Your task to perform on an android device: turn off location Image 0: 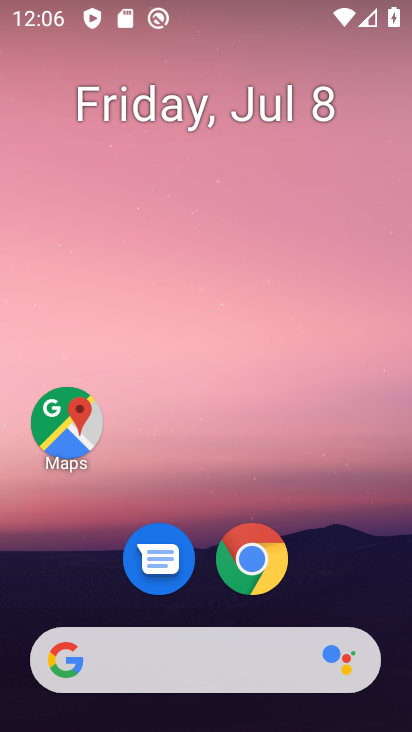
Step 0: drag from (240, 620) to (224, 102)
Your task to perform on an android device: turn off location Image 1: 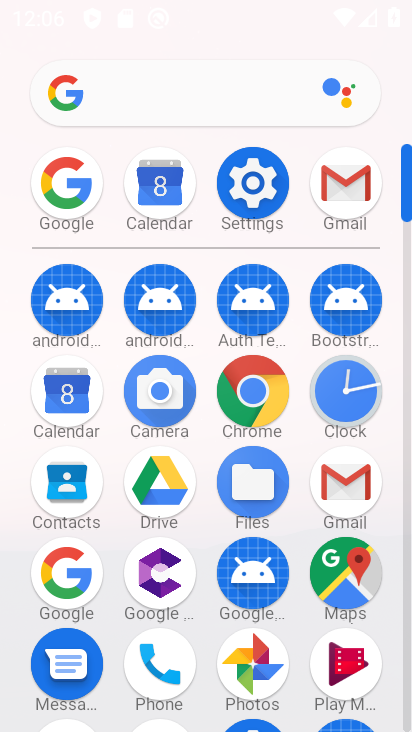
Step 1: click (251, 153)
Your task to perform on an android device: turn off location Image 2: 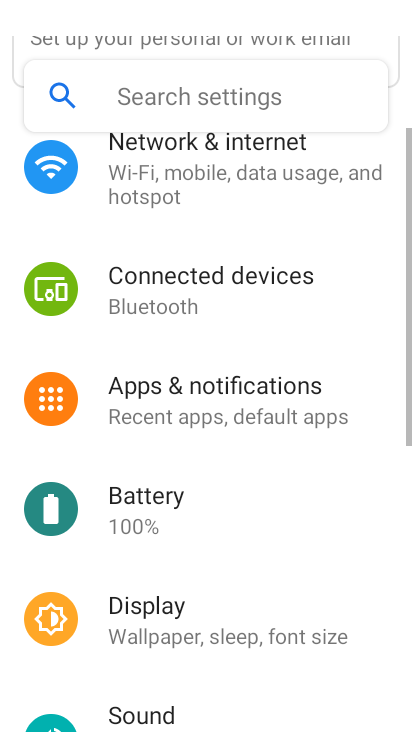
Step 2: drag from (242, 459) to (215, 138)
Your task to perform on an android device: turn off location Image 3: 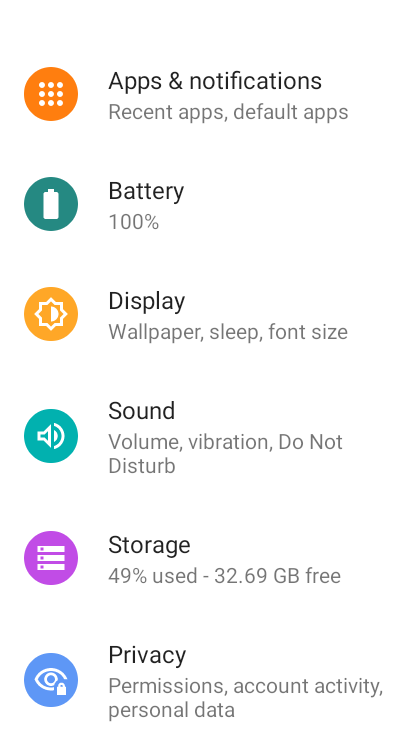
Step 3: drag from (259, 507) to (238, 171)
Your task to perform on an android device: turn off location Image 4: 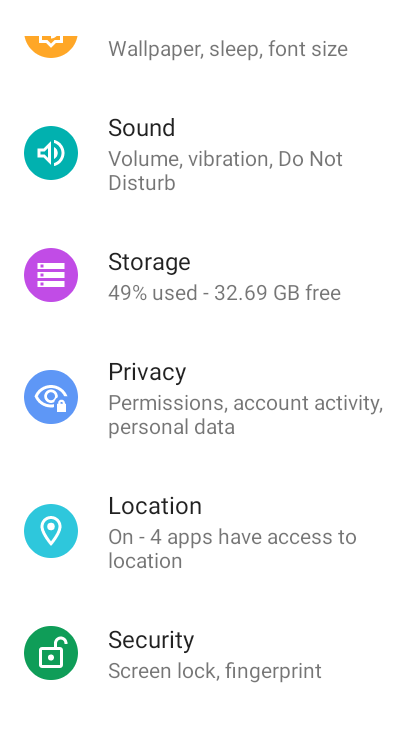
Step 4: click (200, 502)
Your task to perform on an android device: turn off location Image 5: 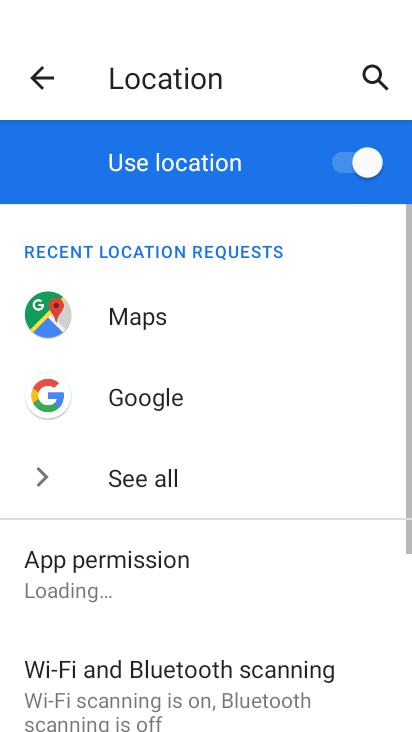
Step 5: click (345, 174)
Your task to perform on an android device: turn off location Image 6: 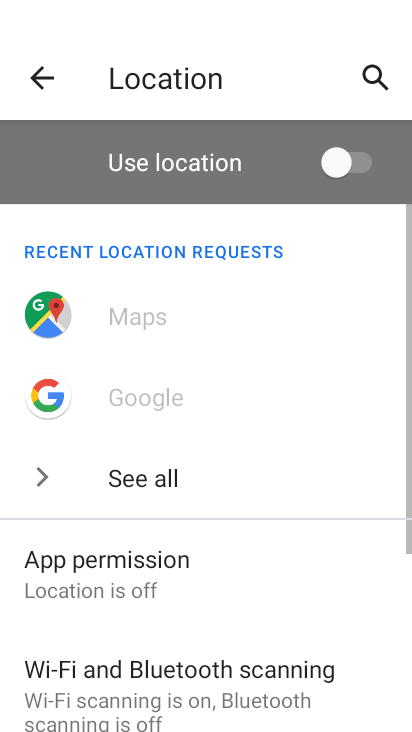
Step 6: task complete